Your task to perform on an android device: open device folders in google photos Image 0: 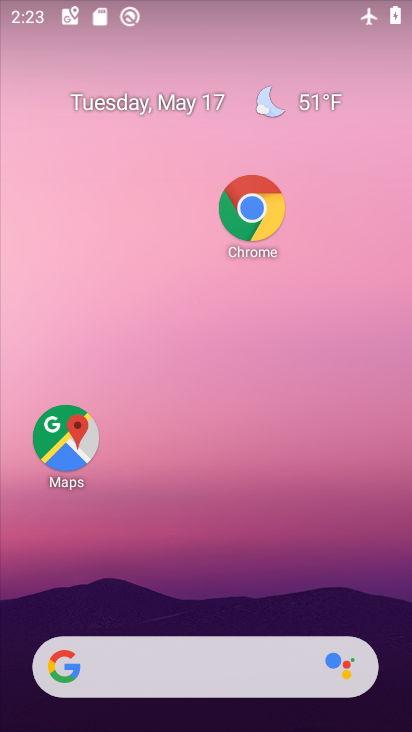
Step 0: drag from (228, 619) to (127, 8)
Your task to perform on an android device: open device folders in google photos Image 1: 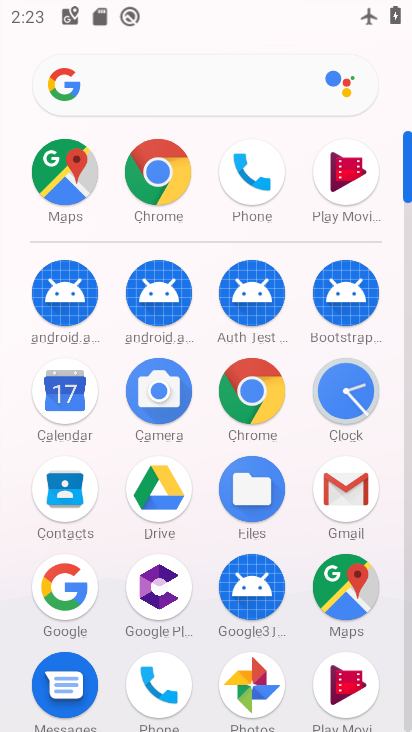
Step 1: click (263, 680)
Your task to perform on an android device: open device folders in google photos Image 2: 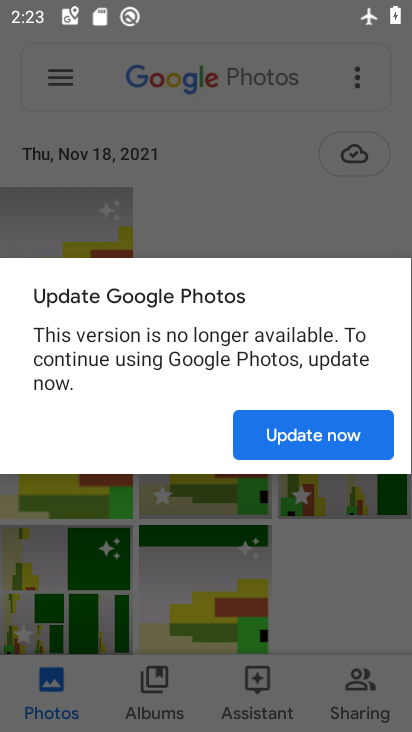
Step 2: click (340, 562)
Your task to perform on an android device: open device folders in google photos Image 3: 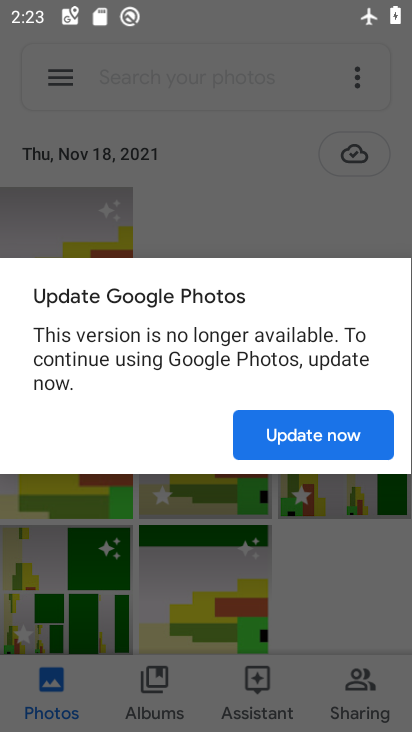
Step 3: click (321, 424)
Your task to perform on an android device: open device folders in google photos Image 4: 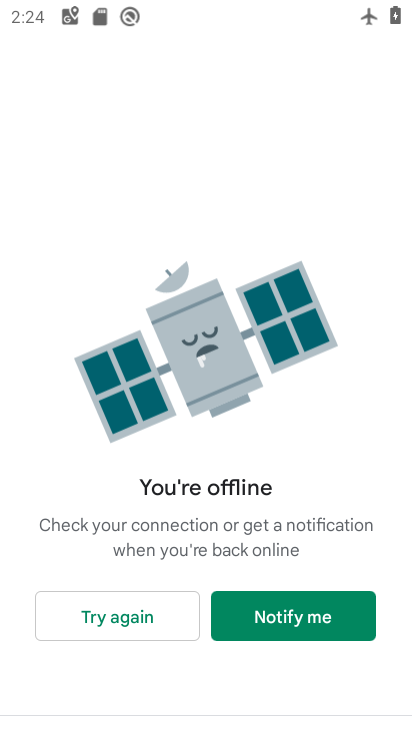
Step 4: click (150, 618)
Your task to perform on an android device: open device folders in google photos Image 5: 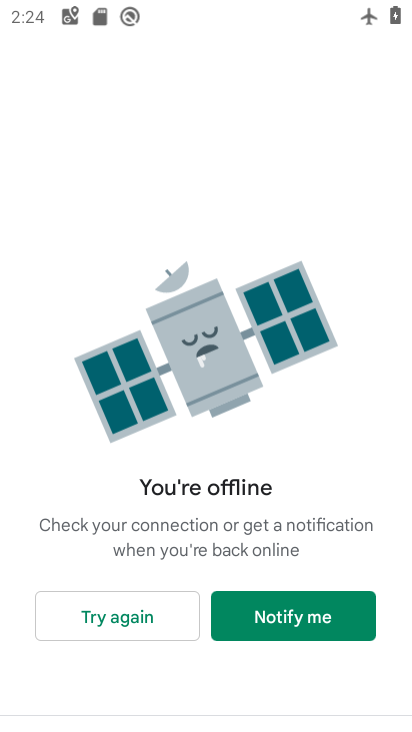
Step 5: click (150, 617)
Your task to perform on an android device: open device folders in google photos Image 6: 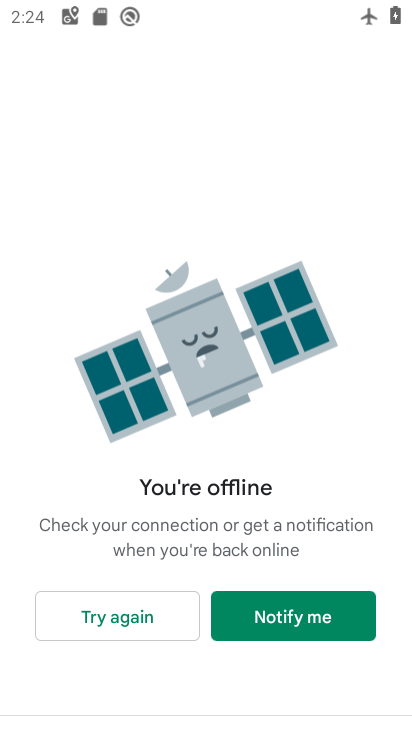
Step 6: task complete